Your task to perform on an android device: Open battery settings Image 0: 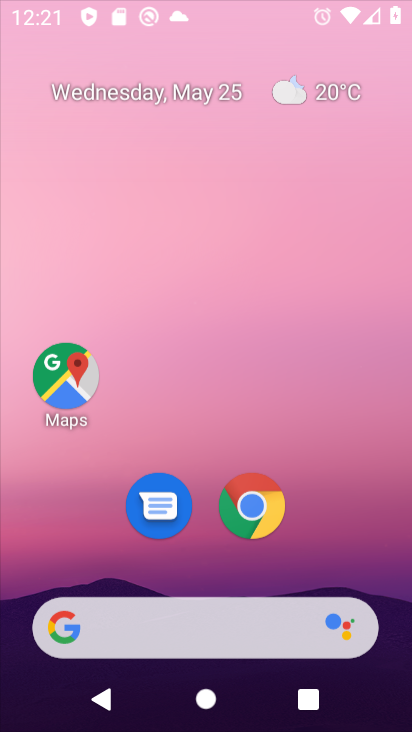
Step 0: click (332, 177)
Your task to perform on an android device: Open battery settings Image 1: 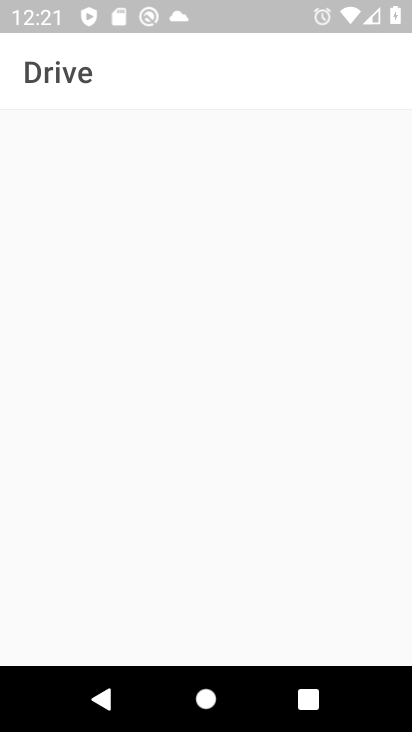
Step 1: drag from (377, 573) to (366, 264)
Your task to perform on an android device: Open battery settings Image 2: 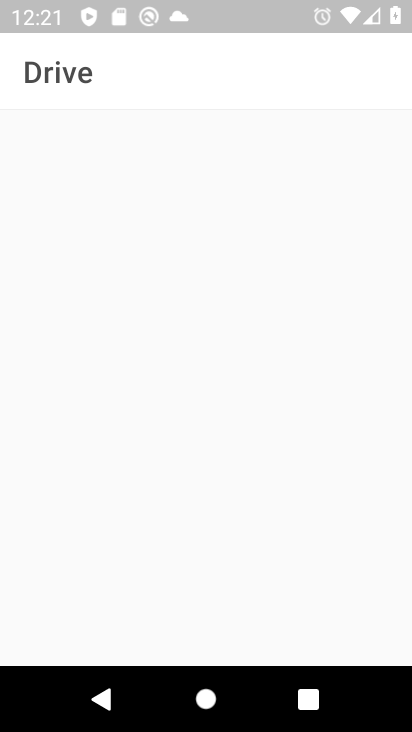
Step 2: press home button
Your task to perform on an android device: Open battery settings Image 3: 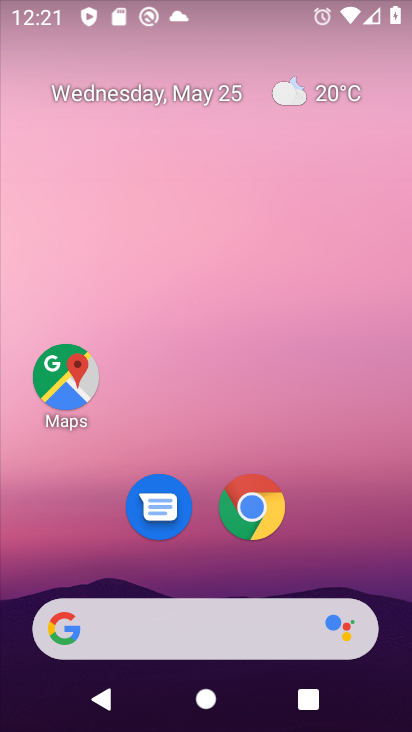
Step 3: drag from (335, 444) to (282, 130)
Your task to perform on an android device: Open battery settings Image 4: 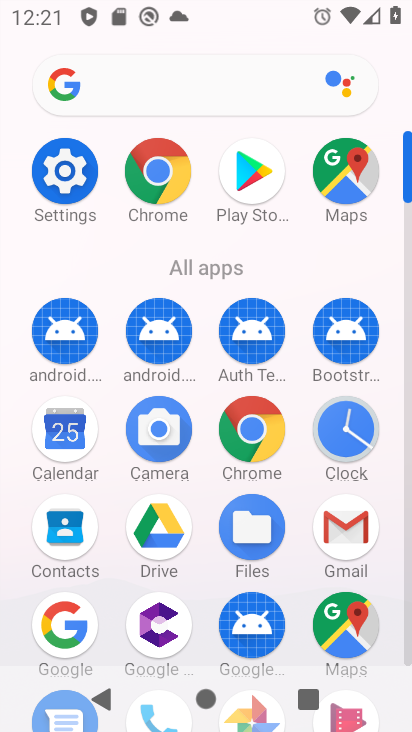
Step 4: click (56, 197)
Your task to perform on an android device: Open battery settings Image 5: 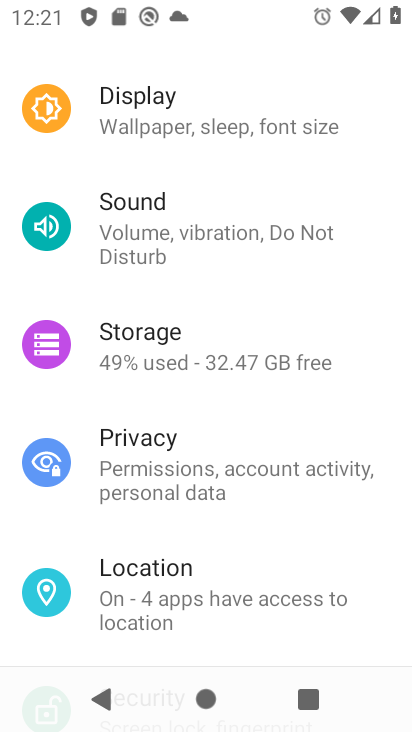
Step 5: drag from (216, 223) to (230, 580)
Your task to perform on an android device: Open battery settings Image 6: 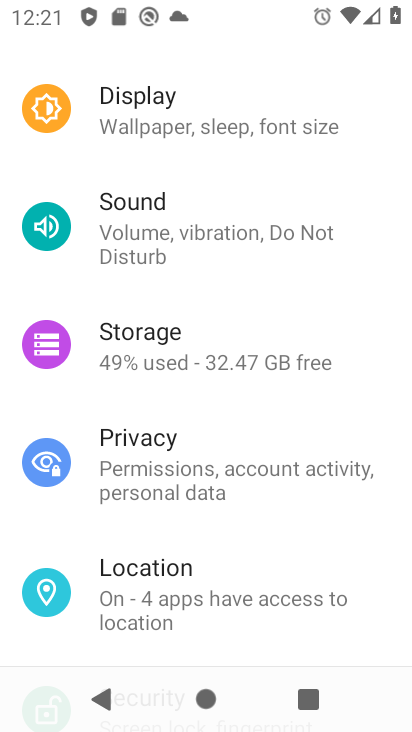
Step 6: drag from (235, 238) to (245, 608)
Your task to perform on an android device: Open battery settings Image 7: 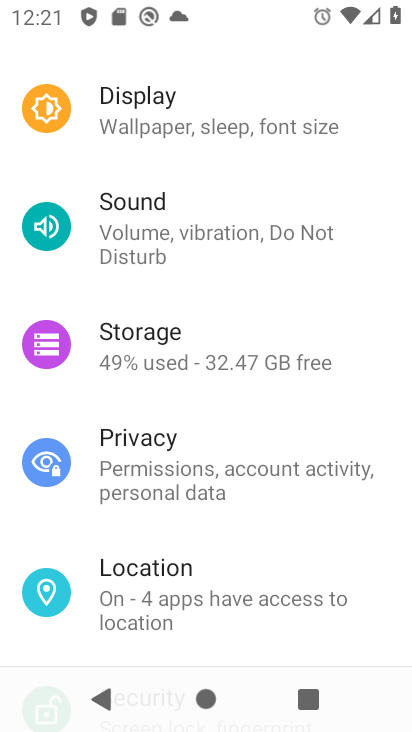
Step 7: drag from (231, 146) to (281, 614)
Your task to perform on an android device: Open battery settings Image 8: 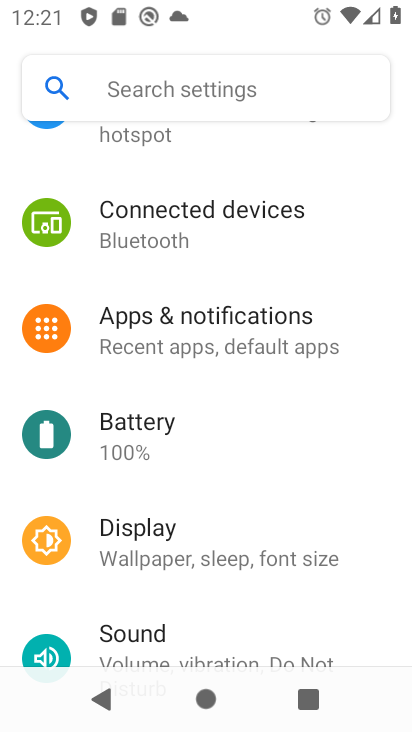
Step 8: click (176, 443)
Your task to perform on an android device: Open battery settings Image 9: 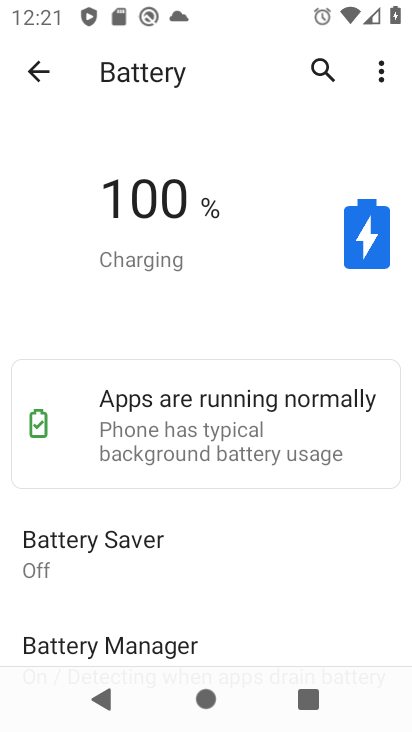
Step 9: task complete